Your task to perform on an android device: change notifications settings Image 0: 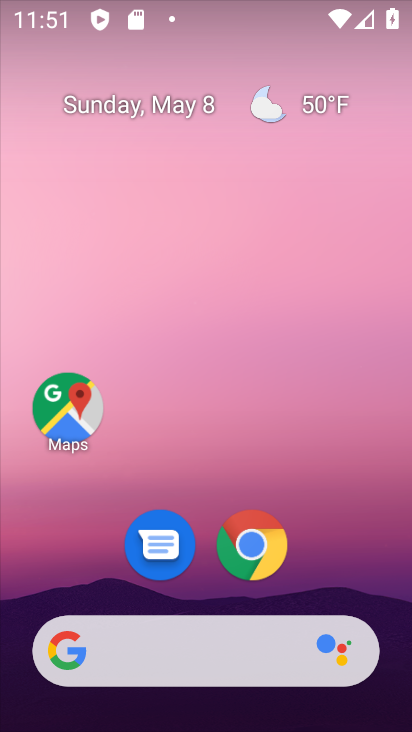
Step 0: drag from (190, 581) to (190, 220)
Your task to perform on an android device: change notifications settings Image 1: 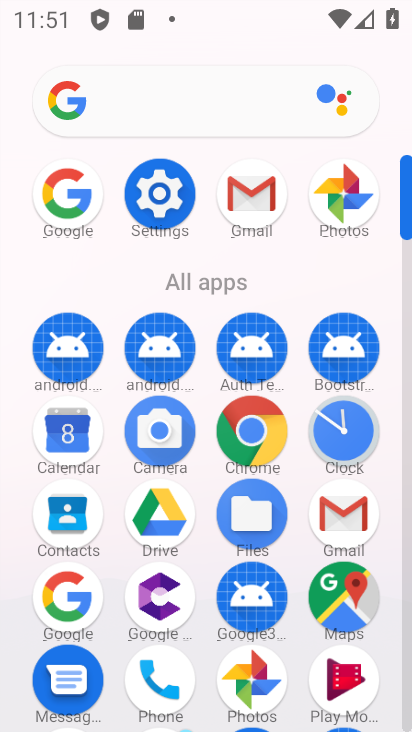
Step 1: click (133, 203)
Your task to perform on an android device: change notifications settings Image 2: 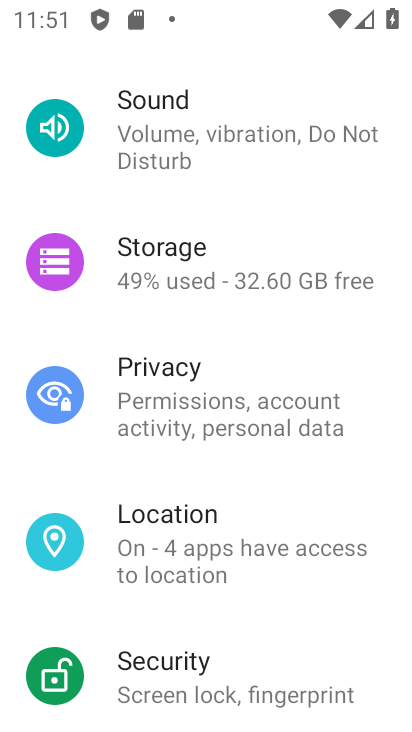
Step 2: drag from (207, 573) to (239, 636)
Your task to perform on an android device: change notifications settings Image 3: 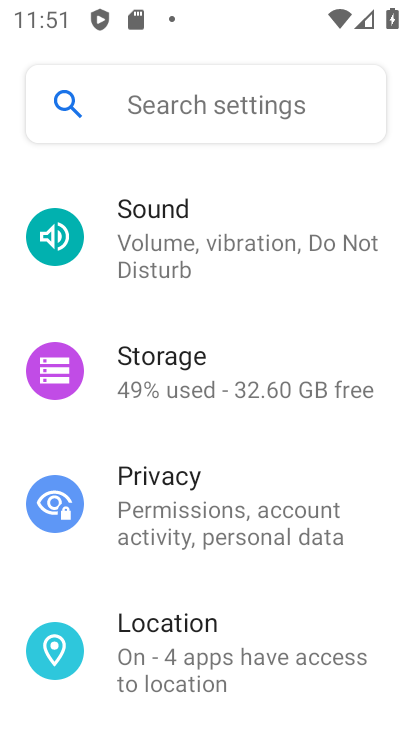
Step 3: drag from (196, 206) to (214, 651)
Your task to perform on an android device: change notifications settings Image 4: 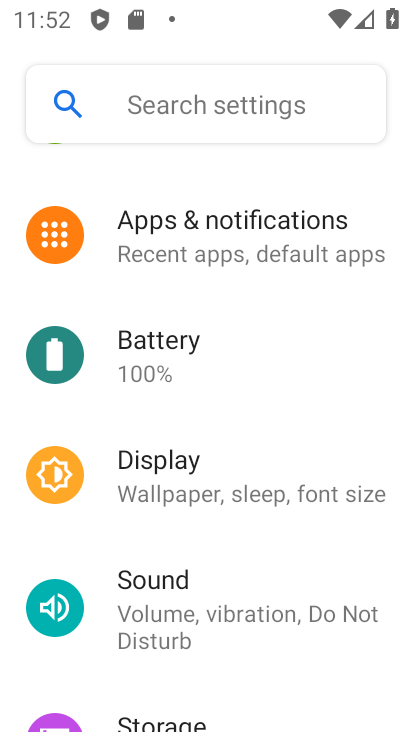
Step 4: click (208, 249)
Your task to perform on an android device: change notifications settings Image 5: 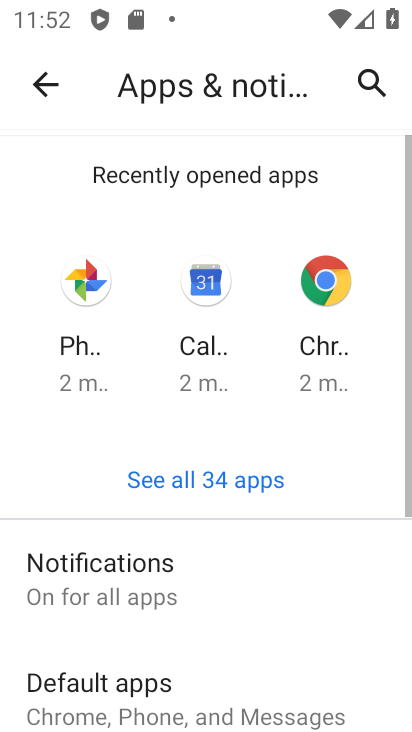
Step 5: click (182, 573)
Your task to perform on an android device: change notifications settings Image 6: 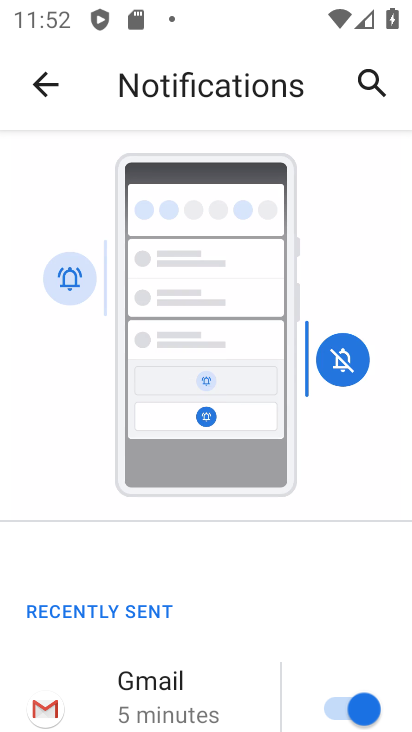
Step 6: drag from (230, 603) to (234, 338)
Your task to perform on an android device: change notifications settings Image 7: 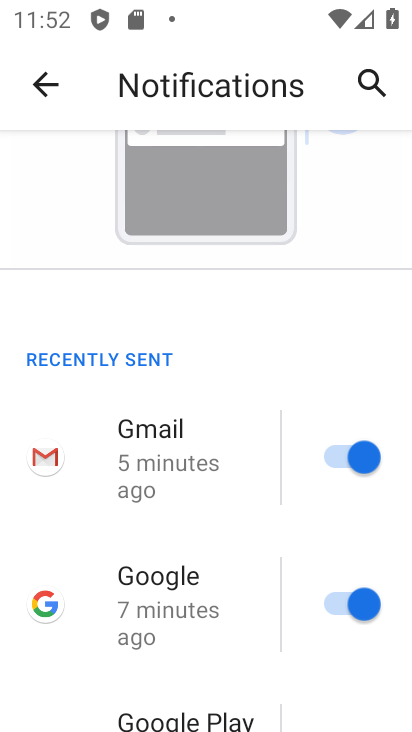
Step 7: drag from (206, 680) to (255, 313)
Your task to perform on an android device: change notifications settings Image 8: 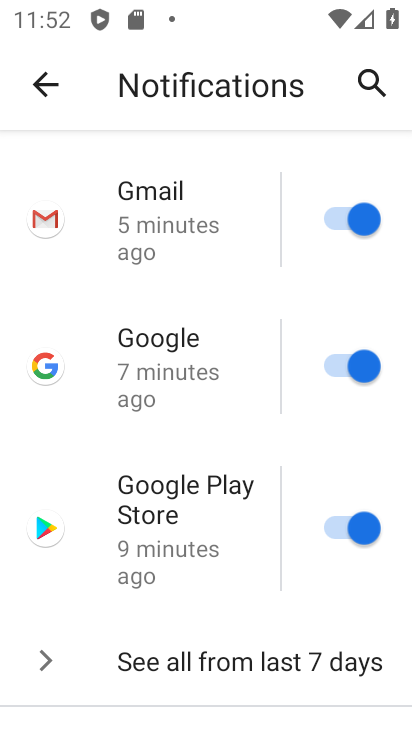
Step 8: drag from (203, 627) to (247, 259)
Your task to perform on an android device: change notifications settings Image 9: 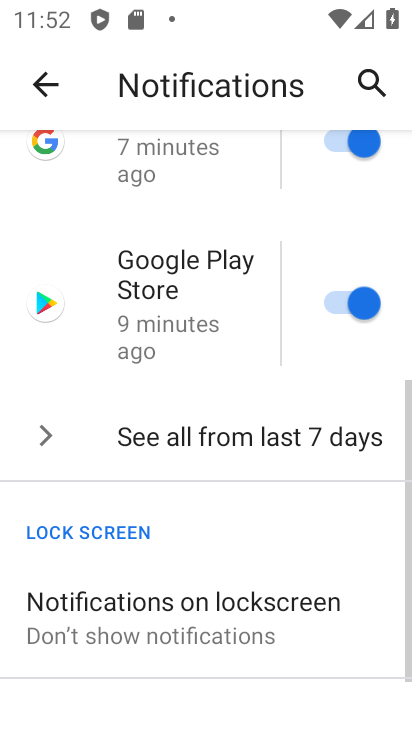
Step 9: drag from (231, 603) to (274, 316)
Your task to perform on an android device: change notifications settings Image 10: 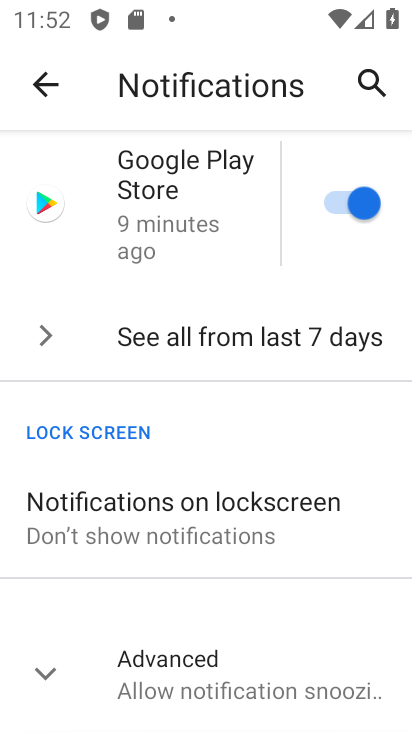
Step 10: drag from (214, 655) to (242, 383)
Your task to perform on an android device: change notifications settings Image 11: 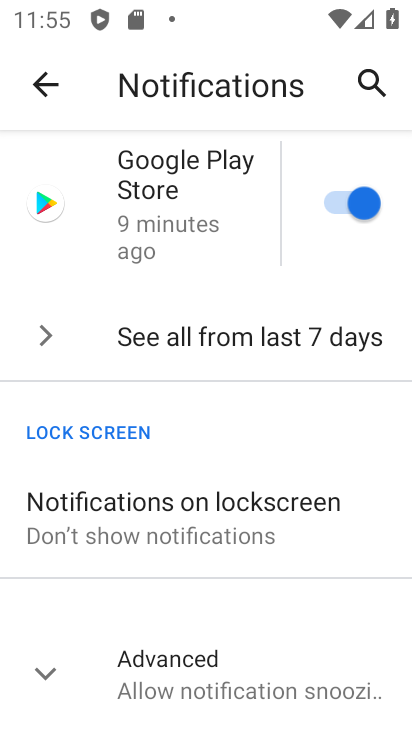
Step 11: drag from (221, 264) to (247, 590)
Your task to perform on an android device: change notifications settings Image 12: 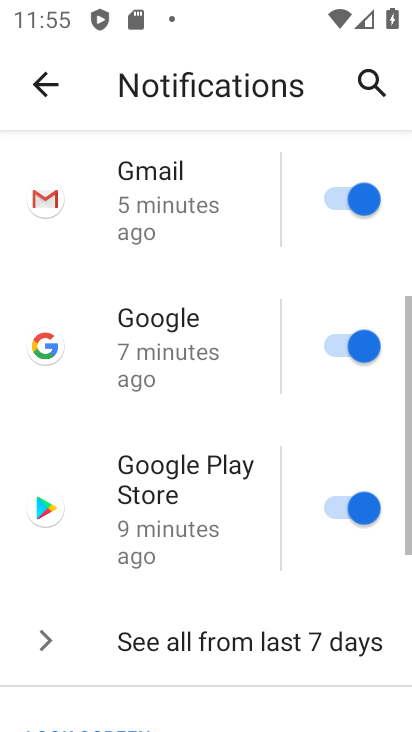
Step 12: drag from (251, 661) to (266, 281)
Your task to perform on an android device: change notifications settings Image 13: 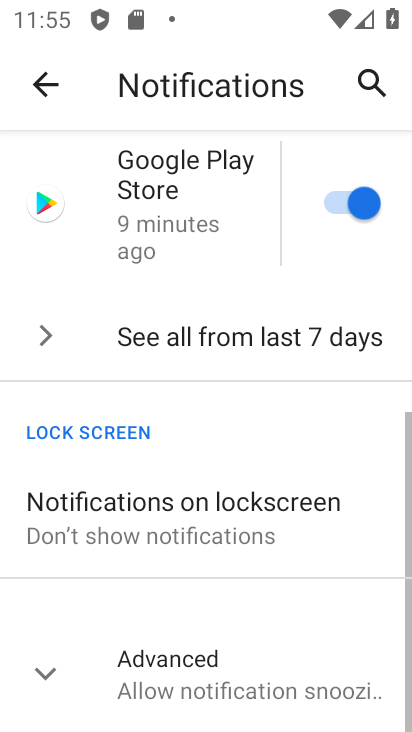
Step 13: drag from (223, 618) to (237, 323)
Your task to perform on an android device: change notifications settings Image 14: 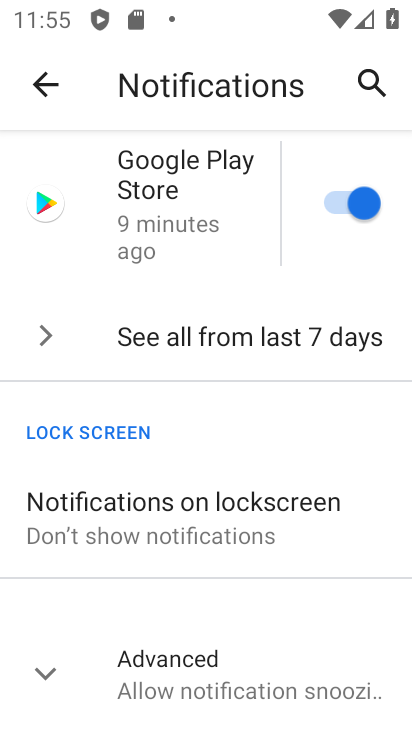
Step 14: drag from (297, 607) to (301, 389)
Your task to perform on an android device: change notifications settings Image 15: 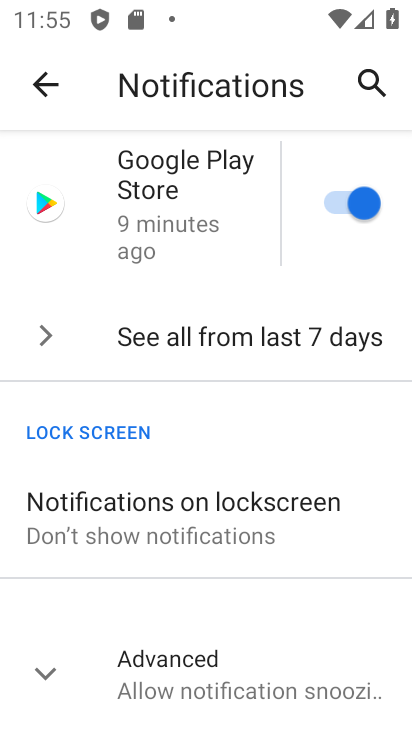
Step 15: drag from (244, 405) to (266, 622)
Your task to perform on an android device: change notifications settings Image 16: 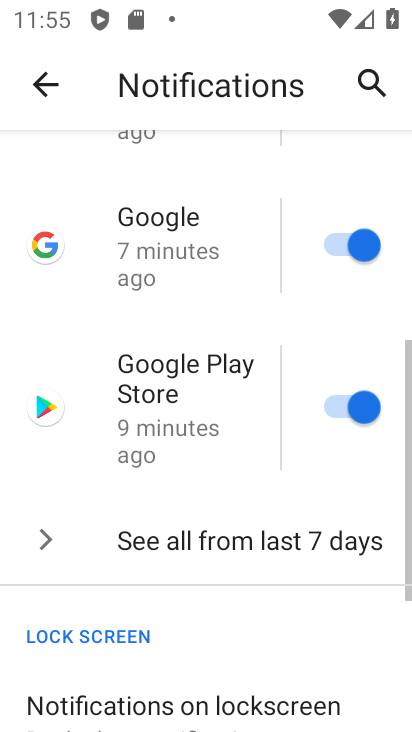
Step 16: drag from (262, 626) to (270, 240)
Your task to perform on an android device: change notifications settings Image 17: 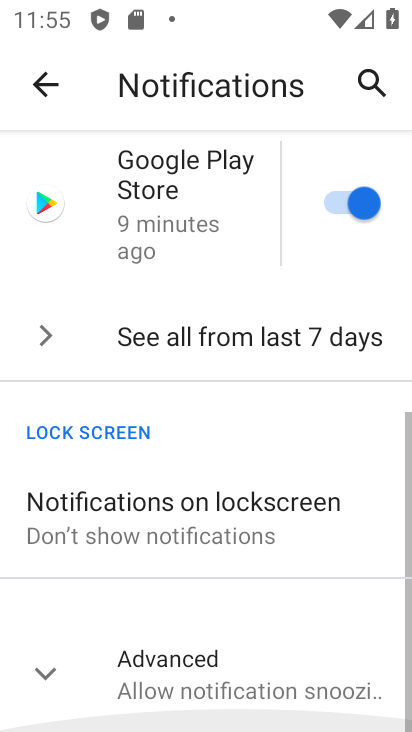
Step 17: drag from (302, 670) to (299, 380)
Your task to perform on an android device: change notifications settings Image 18: 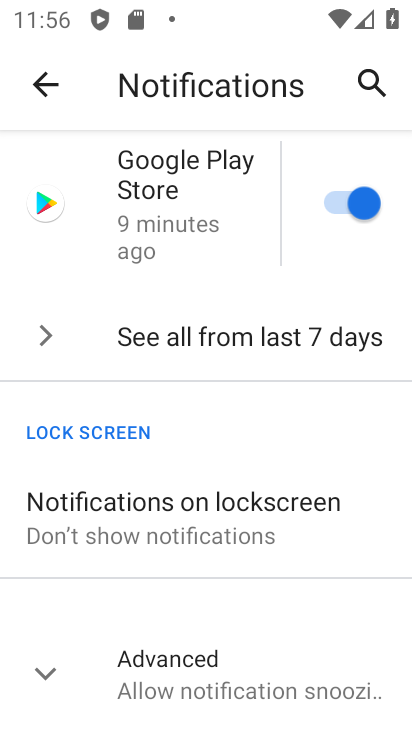
Step 18: click (237, 497)
Your task to perform on an android device: change notifications settings Image 19: 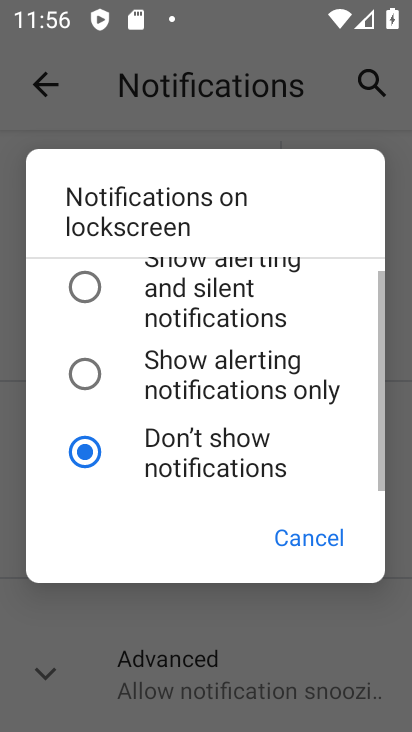
Step 19: click (153, 266)
Your task to perform on an android device: change notifications settings Image 20: 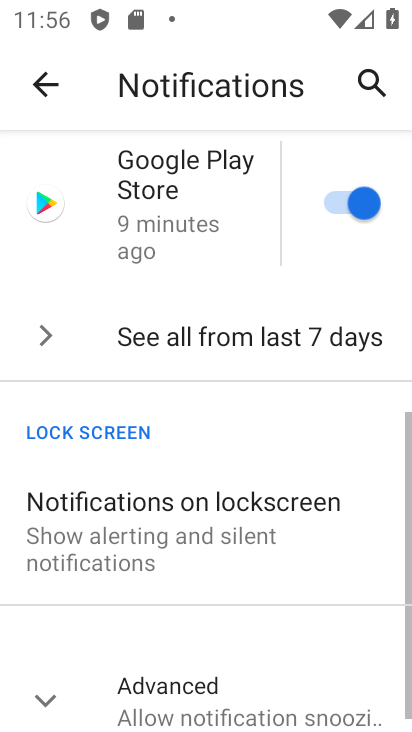
Step 20: task complete